Your task to perform on an android device: turn off location history Image 0: 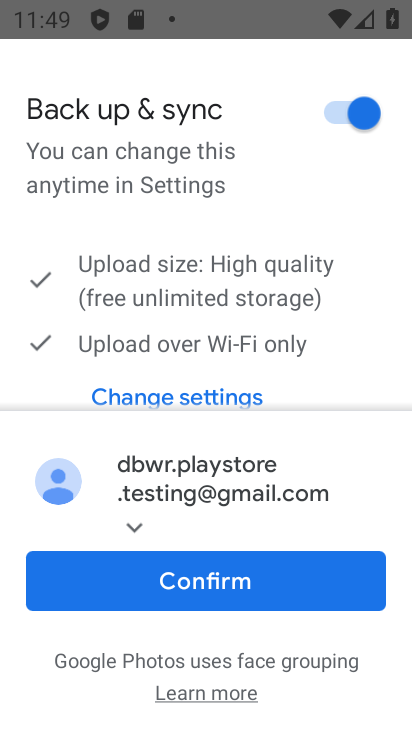
Step 0: click (145, 578)
Your task to perform on an android device: turn off location history Image 1: 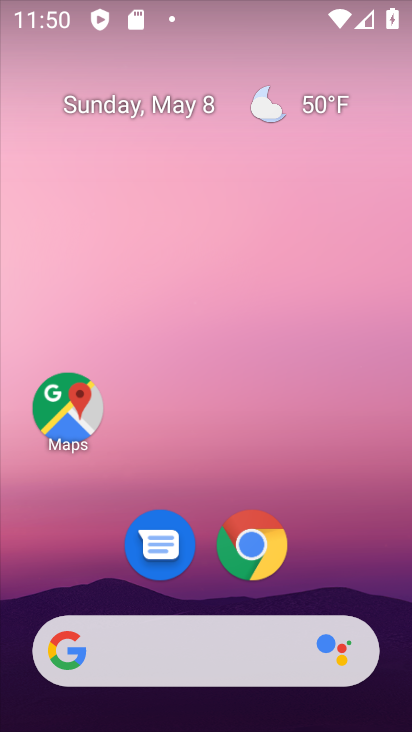
Step 1: drag from (199, 549) to (206, 68)
Your task to perform on an android device: turn off location history Image 2: 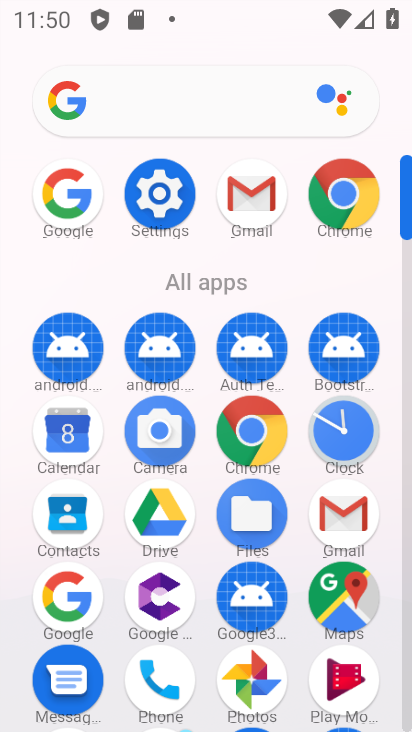
Step 2: click (169, 182)
Your task to perform on an android device: turn off location history Image 3: 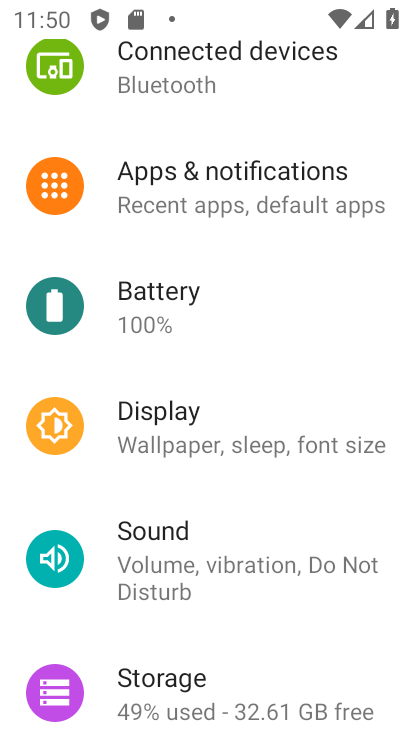
Step 3: drag from (259, 610) to (259, 298)
Your task to perform on an android device: turn off location history Image 4: 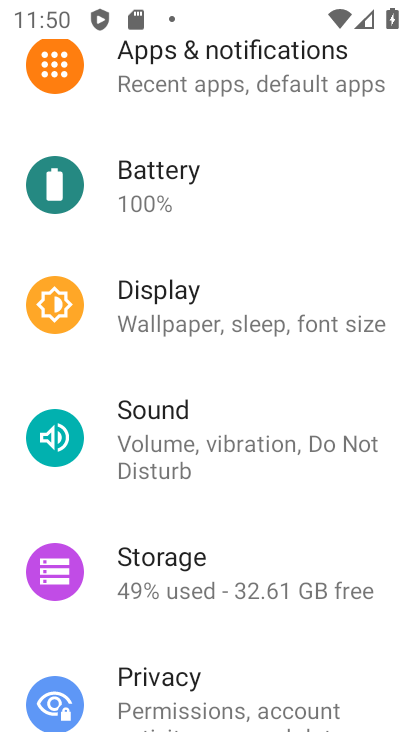
Step 4: drag from (207, 667) to (289, 193)
Your task to perform on an android device: turn off location history Image 5: 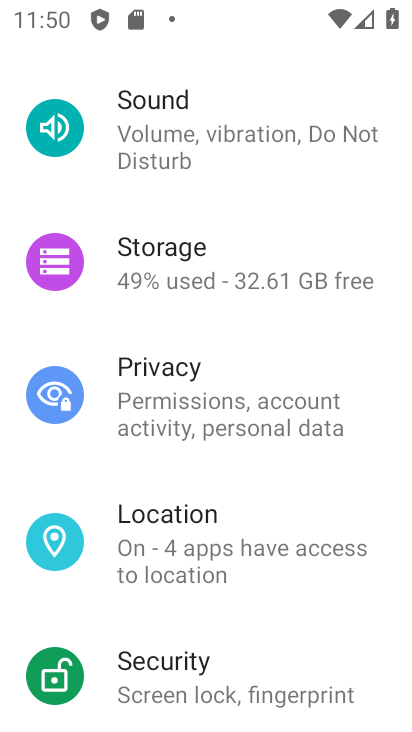
Step 5: click (175, 565)
Your task to perform on an android device: turn off location history Image 6: 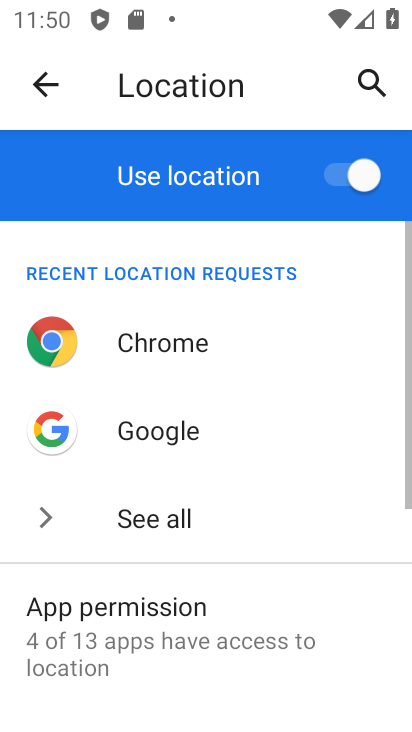
Step 6: drag from (246, 623) to (239, 268)
Your task to perform on an android device: turn off location history Image 7: 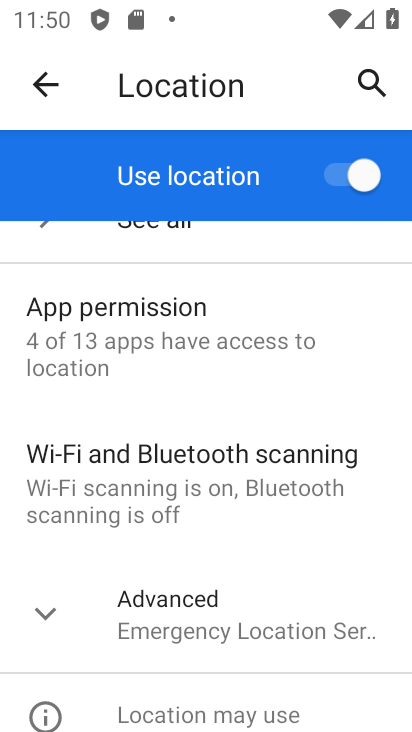
Step 7: click (219, 577)
Your task to perform on an android device: turn off location history Image 8: 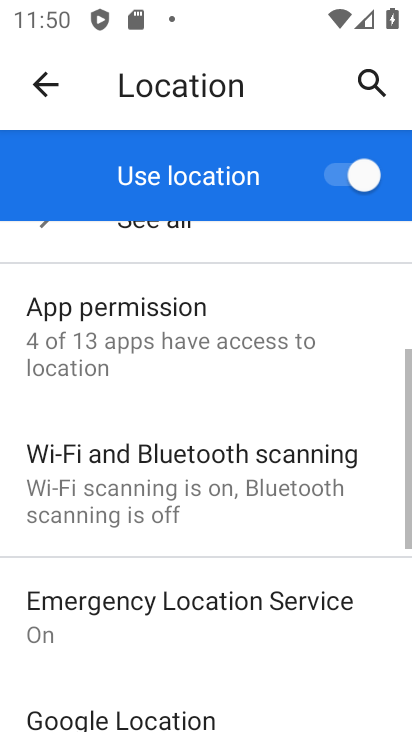
Step 8: drag from (243, 596) to (268, 296)
Your task to perform on an android device: turn off location history Image 9: 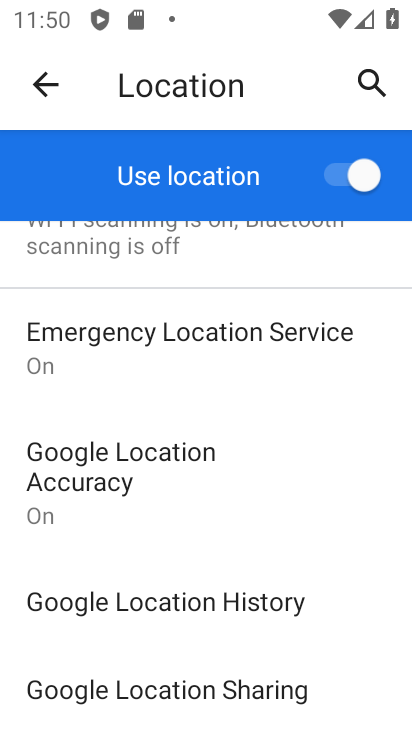
Step 9: click (148, 612)
Your task to perform on an android device: turn off location history Image 10: 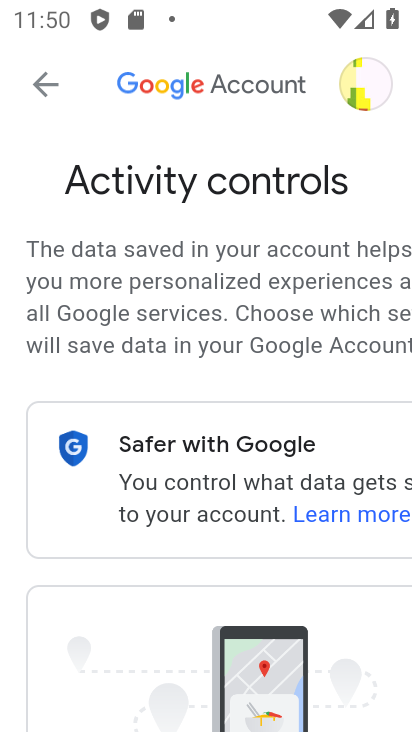
Step 10: drag from (329, 586) to (283, 220)
Your task to perform on an android device: turn off location history Image 11: 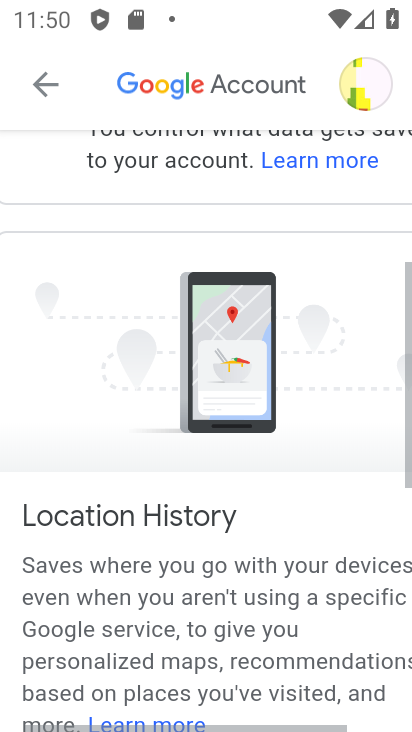
Step 11: drag from (252, 555) to (282, 180)
Your task to perform on an android device: turn off location history Image 12: 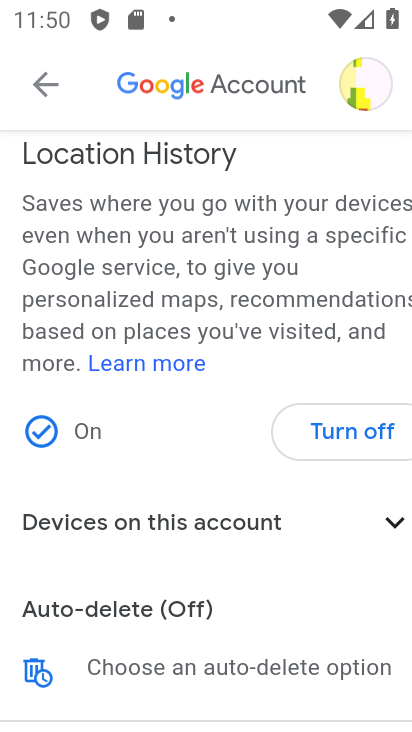
Step 12: click (312, 424)
Your task to perform on an android device: turn off location history Image 13: 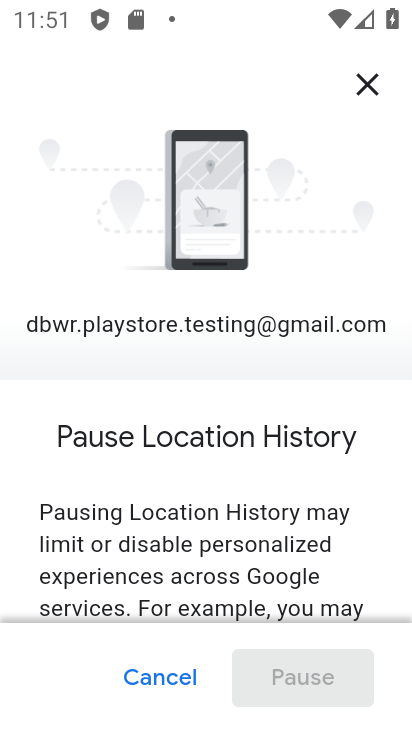
Step 13: drag from (261, 452) to (291, 110)
Your task to perform on an android device: turn off location history Image 14: 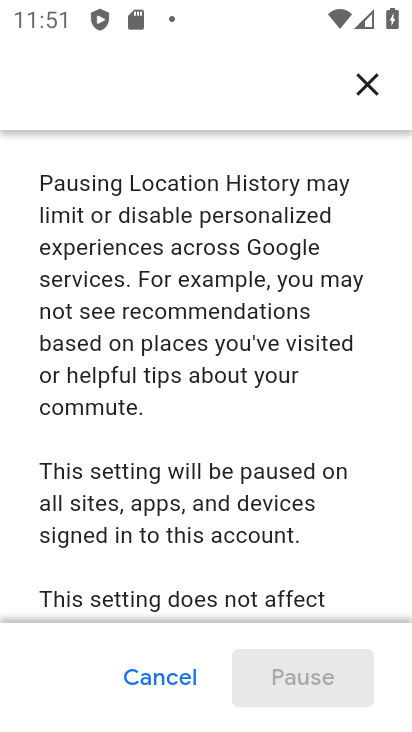
Step 14: drag from (249, 555) to (250, 155)
Your task to perform on an android device: turn off location history Image 15: 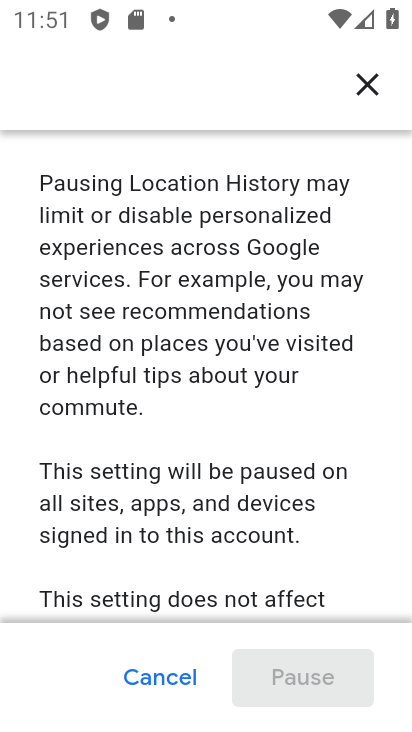
Step 15: drag from (248, 589) to (268, 270)
Your task to perform on an android device: turn off location history Image 16: 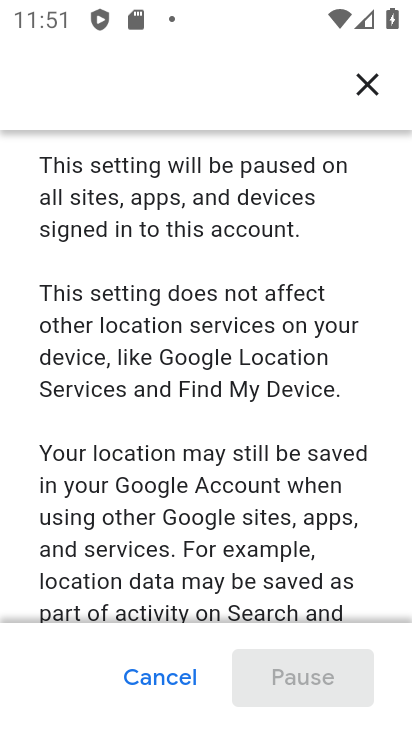
Step 16: drag from (242, 561) to (267, 208)
Your task to perform on an android device: turn off location history Image 17: 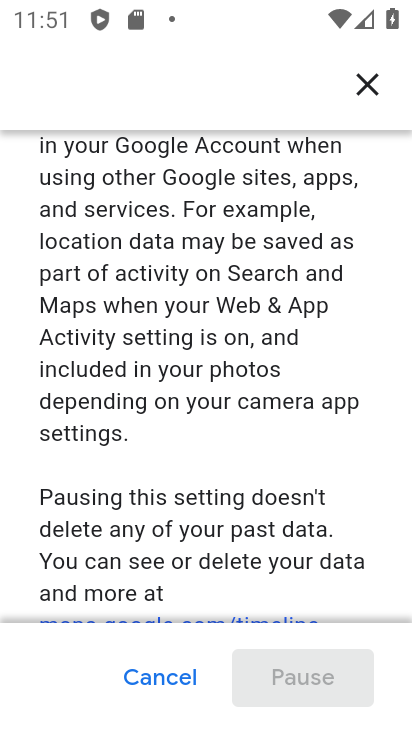
Step 17: drag from (236, 527) to (264, 142)
Your task to perform on an android device: turn off location history Image 18: 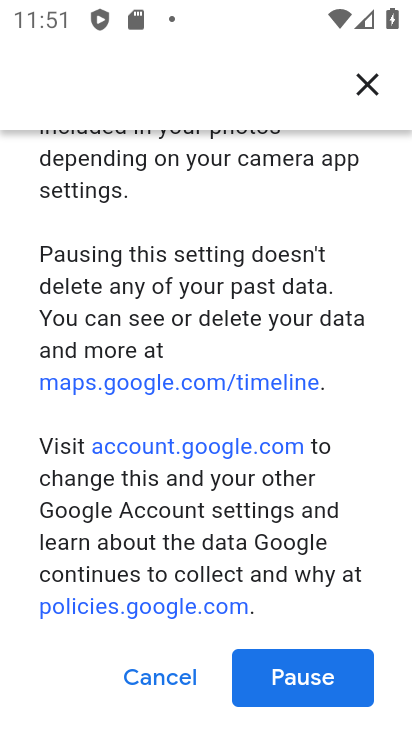
Step 18: drag from (273, 463) to (292, 297)
Your task to perform on an android device: turn off location history Image 19: 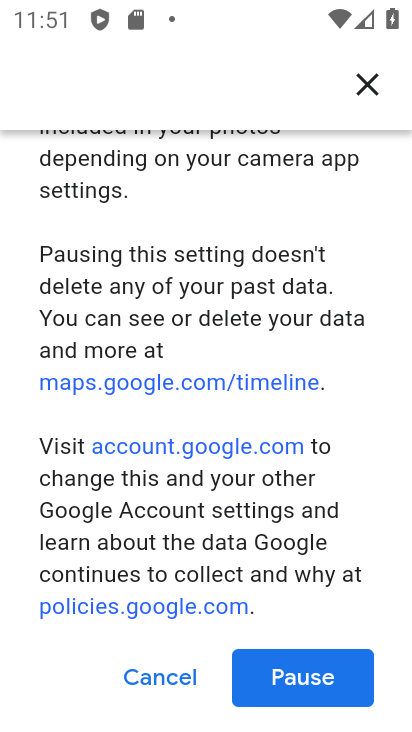
Step 19: click (287, 684)
Your task to perform on an android device: turn off location history Image 20: 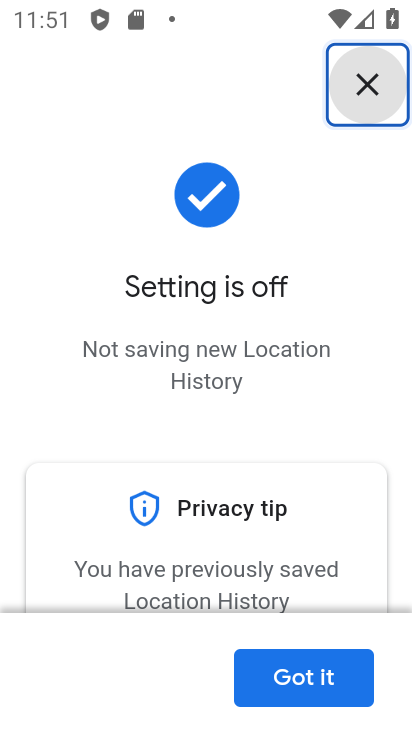
Step 20: task complete